Your task to perform on an android device: turn off notifications in google photos Image 0: 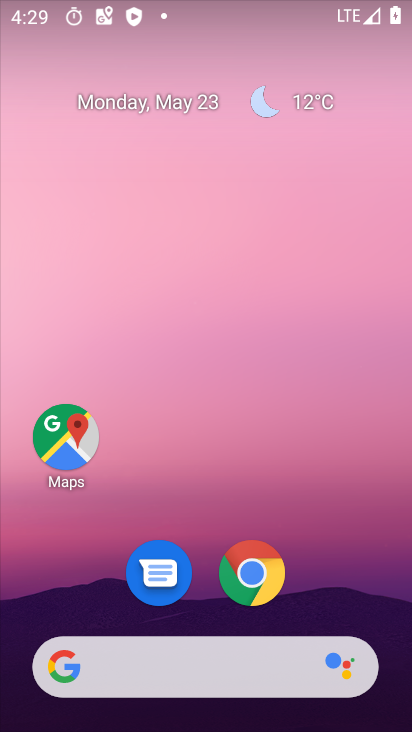
Step 0: drag from (21, 607) to (255, 169)
Your task to perform on an android device: turn off notifications in google photos Image 1: 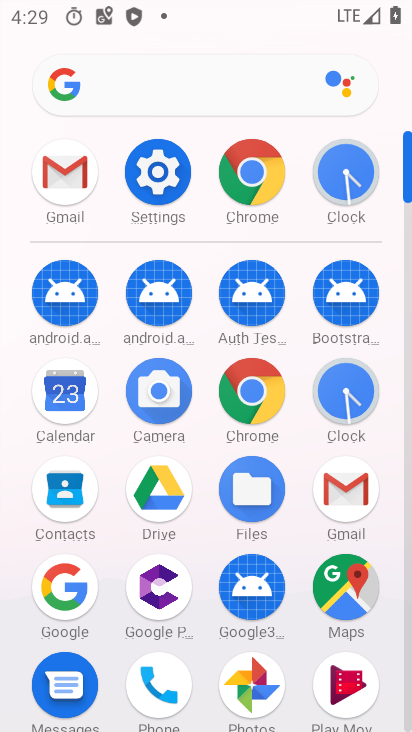
Step 1: click (246, 678)
Your task to perform on an android device: turn off notifications in google photos Image 2: 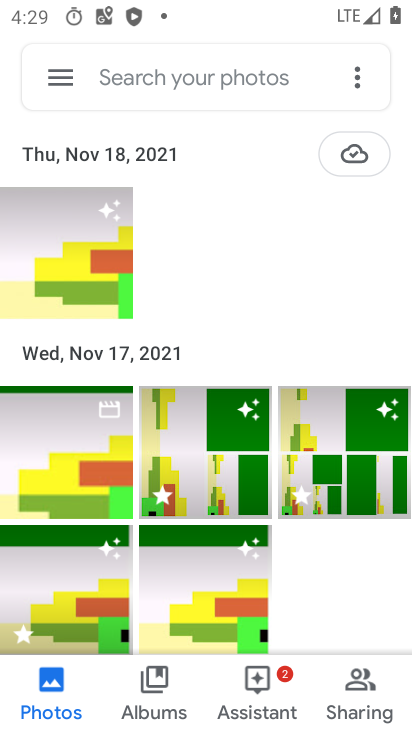
Step 2: click (53, 85)
Your task to perform on an android device: turn off notifications in google photos Image 3: 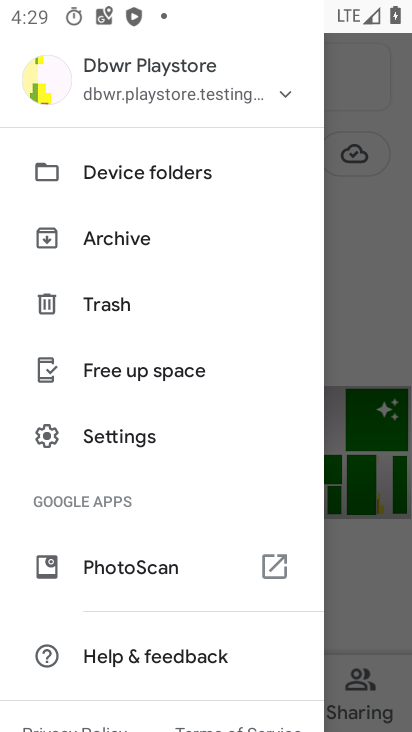
Step 3: drag from (45, 673) to (217, 195)
Your task to perform on an android device: turn off notifications in google photos Image 4: 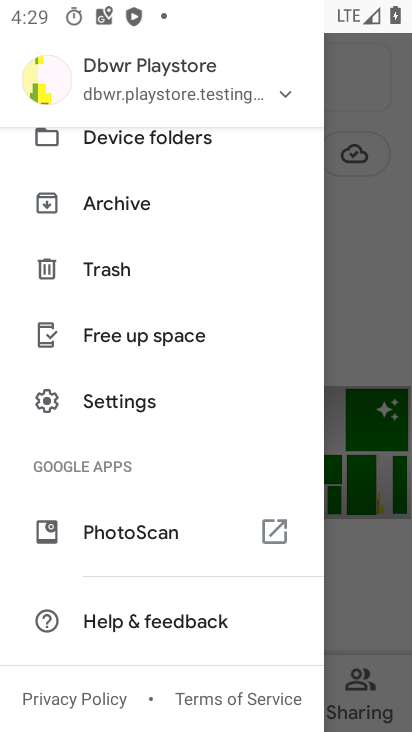
Step 4: click (116, 396)
Your task to perform on an android device: turn off notifications in google photos Image 5: 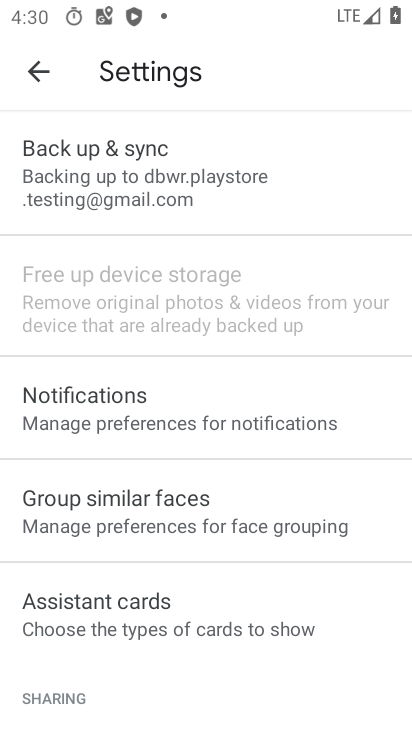
Step 5: drag from (98, 645) to (306, 306)
Your task to perform on an android device: turn off notifications in google photos Image 6: 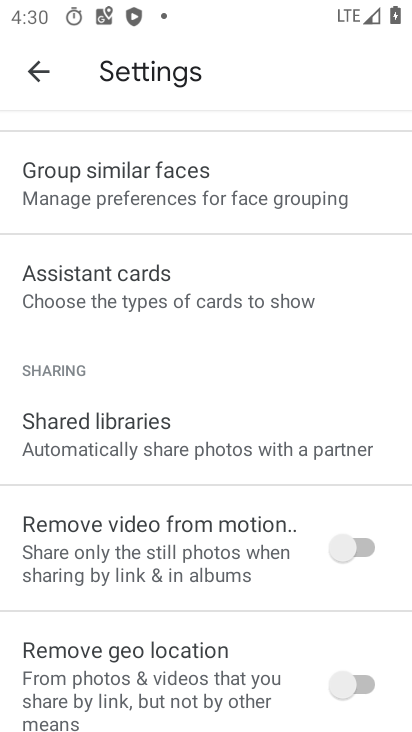
Step 6: drag from (225, 218) to (203, 540)
Your task to perform on an android device: turn off notifications in google photos Image 7: 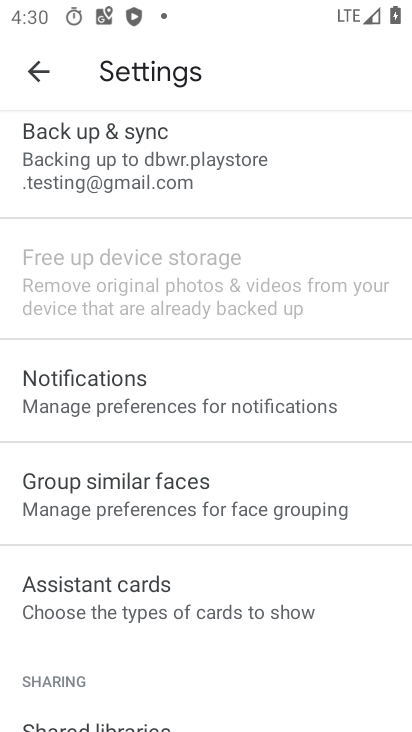
Step 7: click (129, 410)
Your task to perform on an android device: turn off notifications in google photos Image 8: 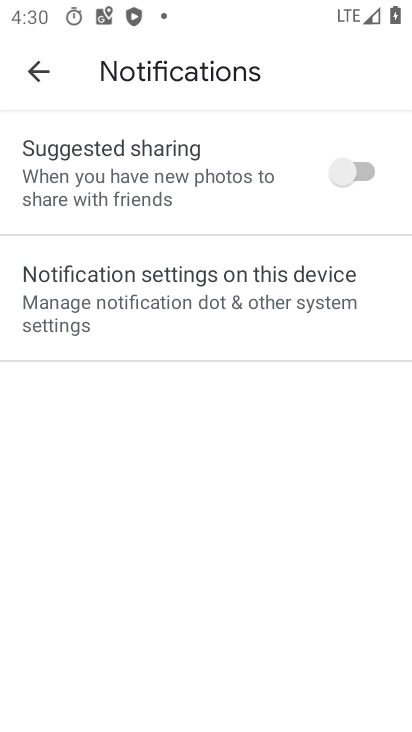
Step 8: click (235, 278)
Your task to perform on an android device: turn off notifications in google photos Image 9: 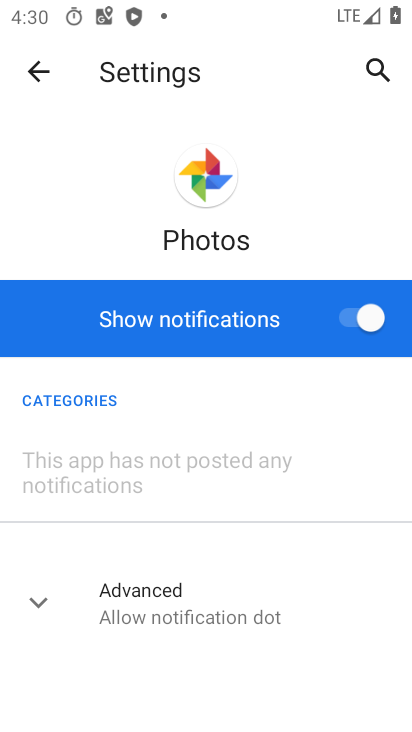
Step 9: click (370, 321)
Your task to perform on an android device: turn off notifications in google photos Image 10: 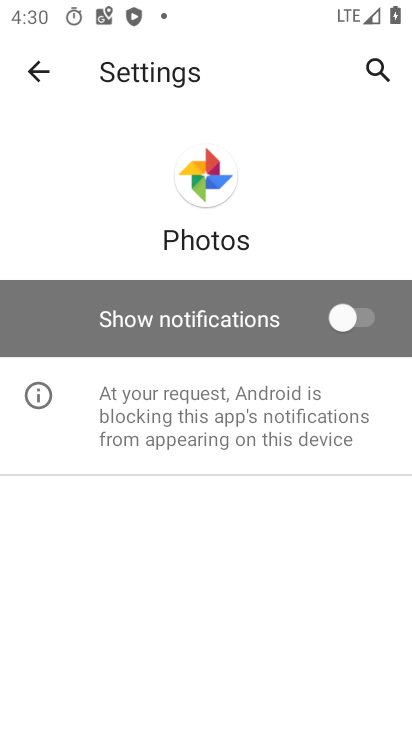
Step 10: task complete